Your task to perform on an android device: Search for vegetarian restaurants on Maps Image 0: 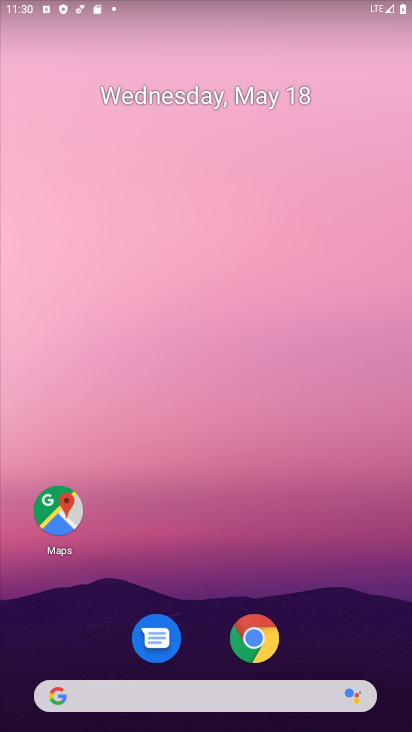
Step 0: drag from (341, 623) to (282, 119)
Your task to perform on an android device: Search for vegetarian restaurants on Maps Image 1: 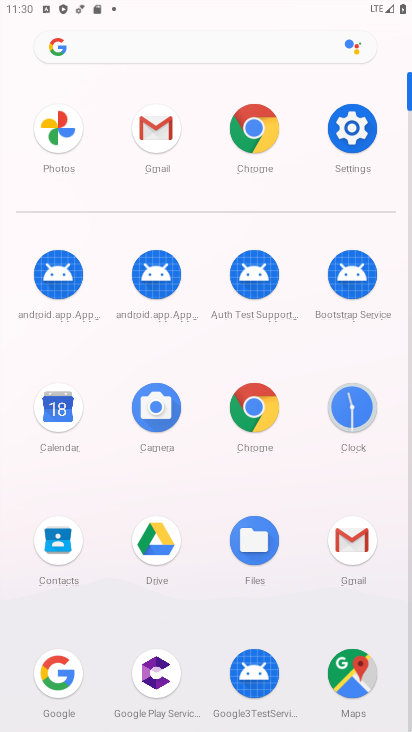
Step 1: click (342, 688)
Your task to perform on an android device: Search for vegetarian restaurants on Maps Image 2: 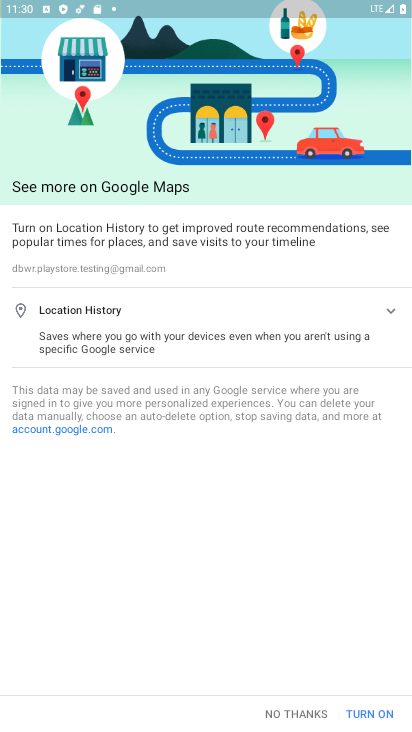
Step 2: click (311, 715)
Your task to perform on an android device: Search for vegetarian restaurants on Maps Image 3: 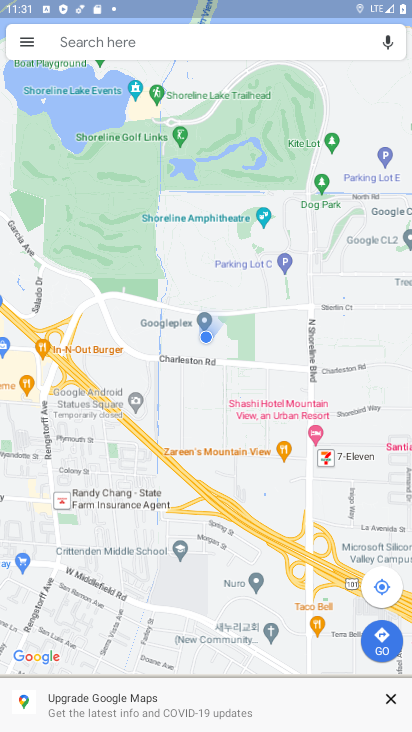
Step 3: click (181, 33)
Your task to perform on an android device: Search for vegetarian restaurants on Maps Image 4: 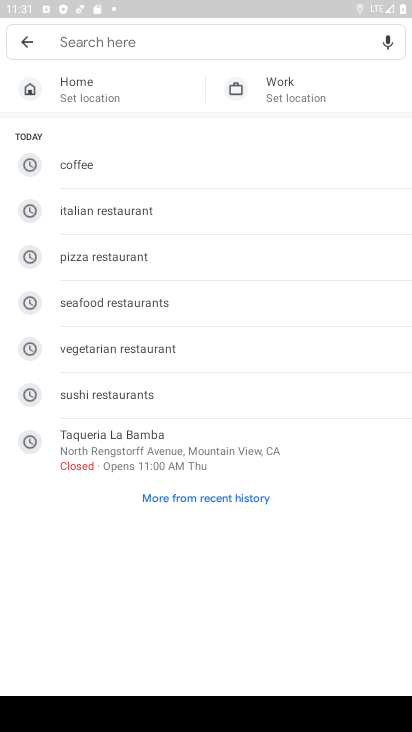
Step 4: click (134, 350)
Your task to perform on an android device: Search for vegetarian restaurants on Maps Image 5: 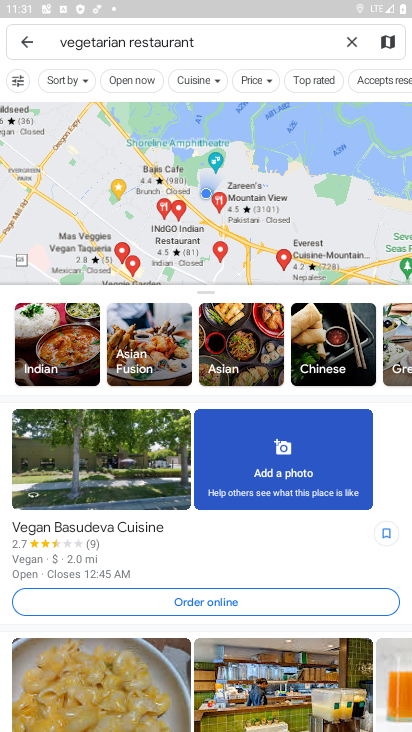
Step 5: task complete